Your task to perform on an android device: Open Google Chrome and click the shortcut for Amazon.com Image 0: 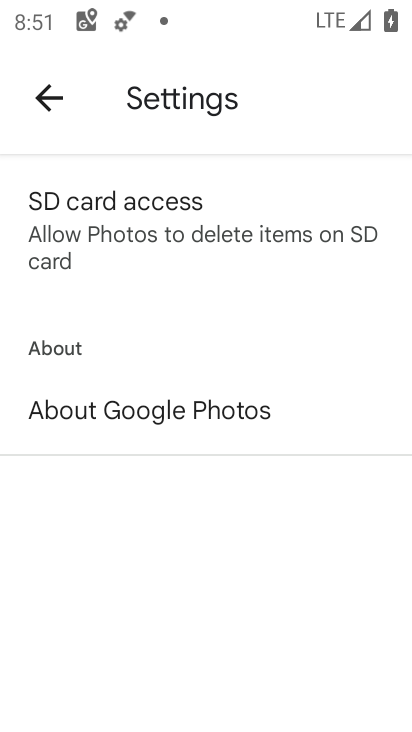
Step 0: press back button
Your task to perform on an android device: Open Google Chrome and click the shortcut for Amazon.com Image 1: 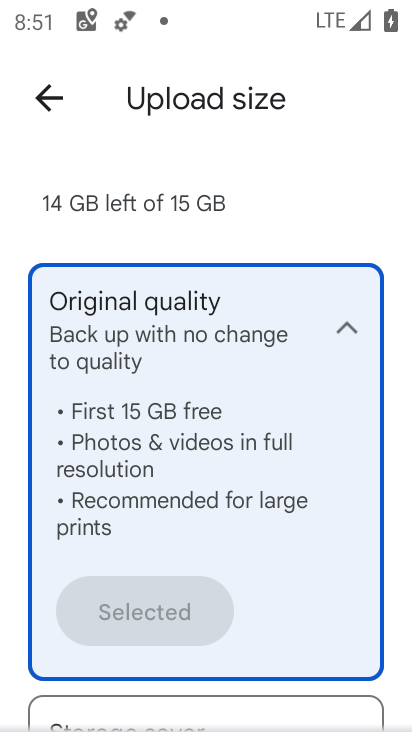
Step 1: press home button
Your task to perform on an android device: Open Google Chrome and click the shortcut for Amazon.com Image 2: 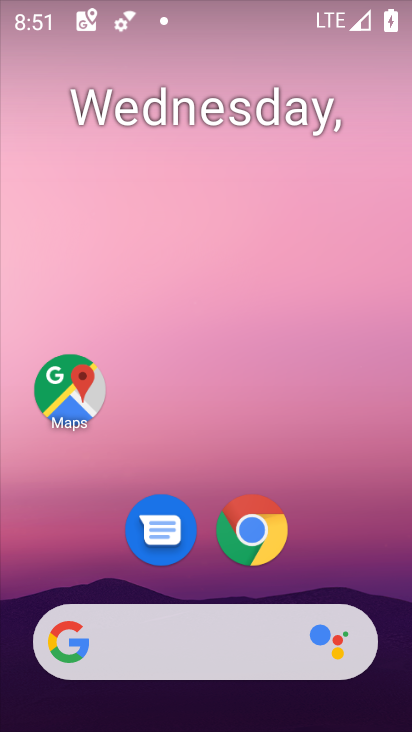
Step 2: click (239, 524)
Your task to perform on an android device: Open Google Chrome and click the shortcut for Amazon.com Image 3: 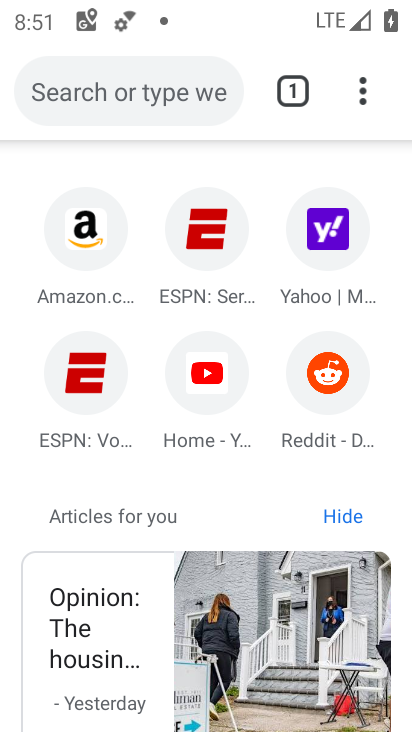
Step 3: click (94, 220)
Your task to perform on an android device: Open Google Chrome and click the shortcut for Amazon.com Image 4: 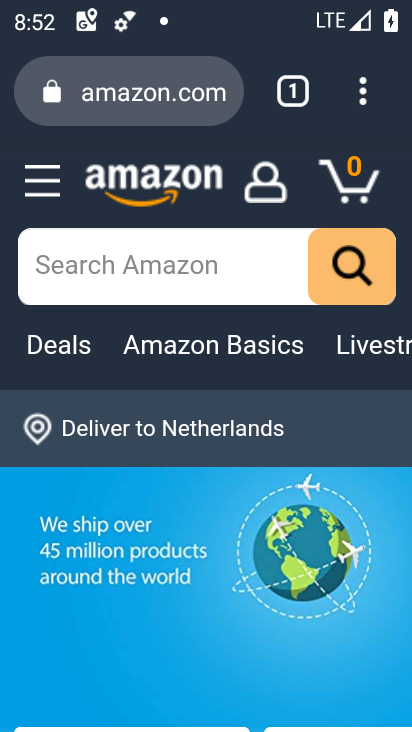
Step 4: task complete